Your task to perform on an android device: Go to CNN.com Image 0: 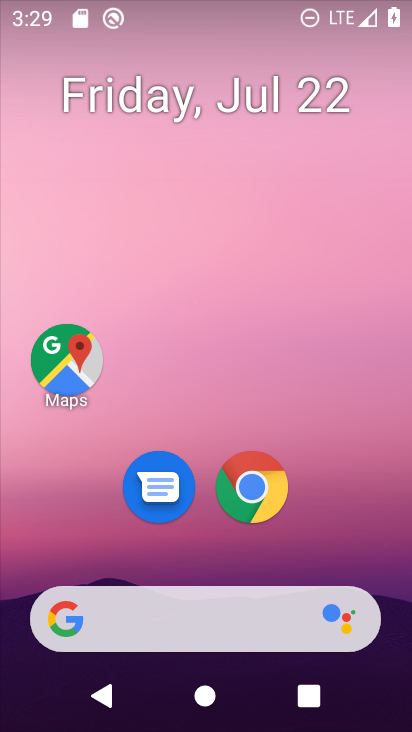
Step 0: click (247, 482)
Your task to perform on an android device: Go to CNN.com Image 1: 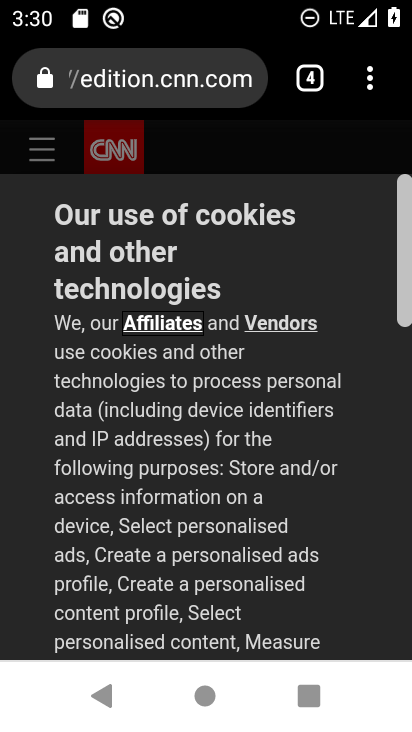
Step 1: task complete